Your task to perform on an android device: What's on my calendar today? Image 0: 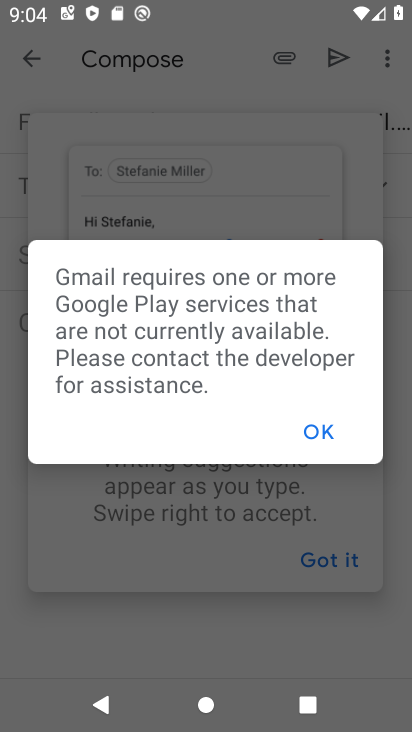
Step 0: press home button
Your task to perform on an android device: What's on my calendar today? Image 1: 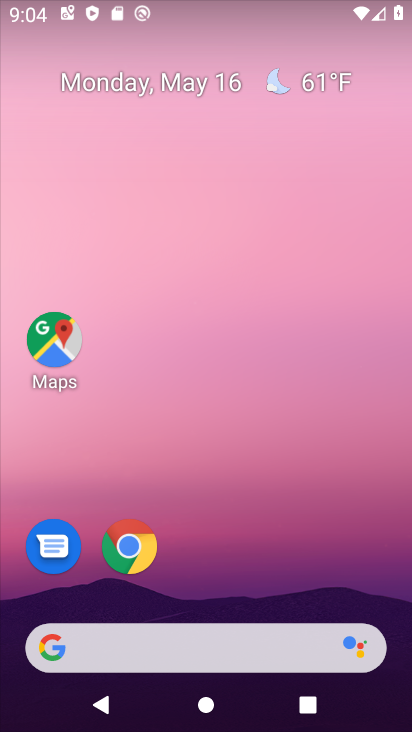
Step 1: drag from (284, 490) to (243, 149)
Your task to perform on an android device: What's on my calendar today? Image 2: 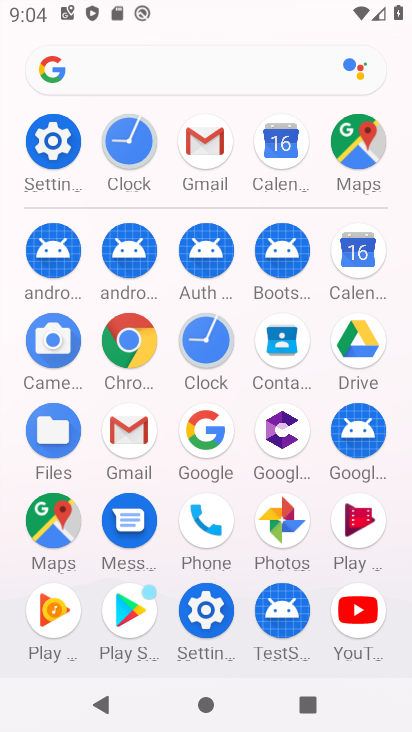
Step 2: click (367, 251)
Your task to perform on an android device: What's on my calendar today? Image 3: 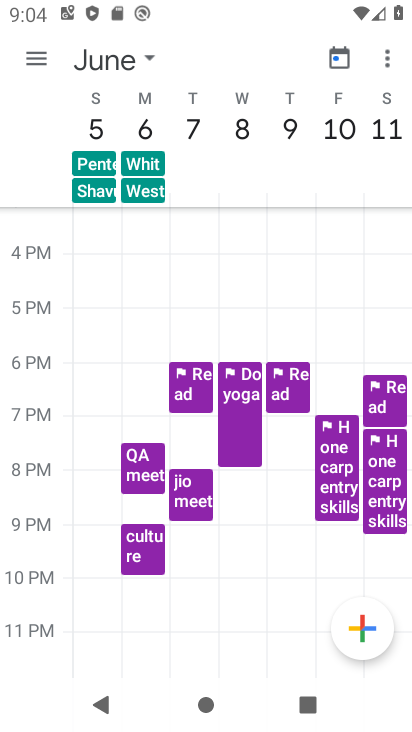
Step 3: click (95, 47)
Your task to perform on an android device: What's on my calendar today? Image 4: 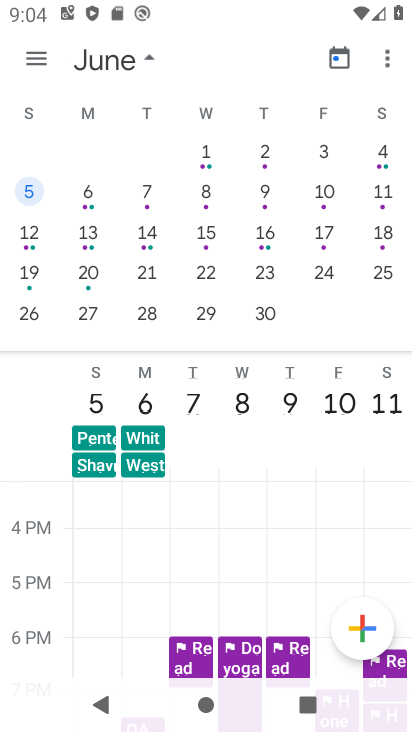
Step 4: drag from (119, 211) to (395, 240)
Your task to perform on an android device: What's on my calendar today? Image 5: 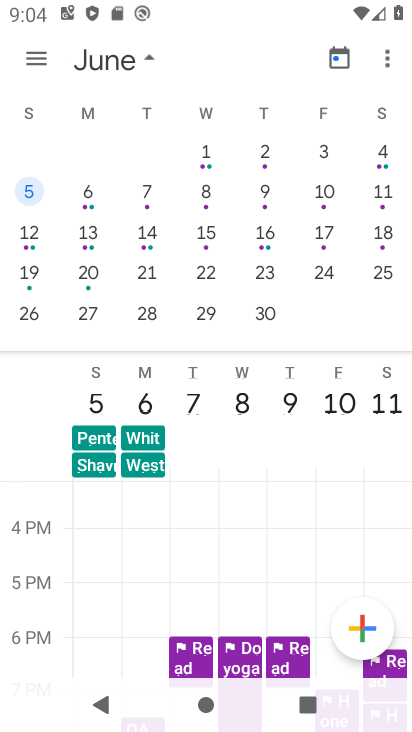
Step 5: drag from (72, 167) to (362, 174)
Your task to perform on an android device: What's on my calendar today? Image 6: 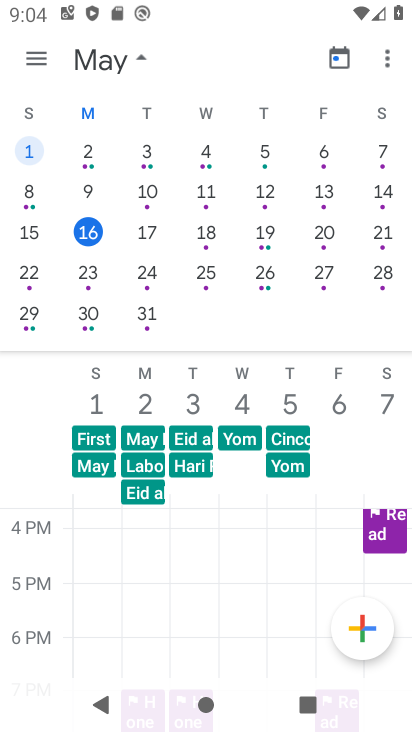
Step 6: click (90, 228)
Your task to perform on an android device: What's on my calendar today? Image 7: 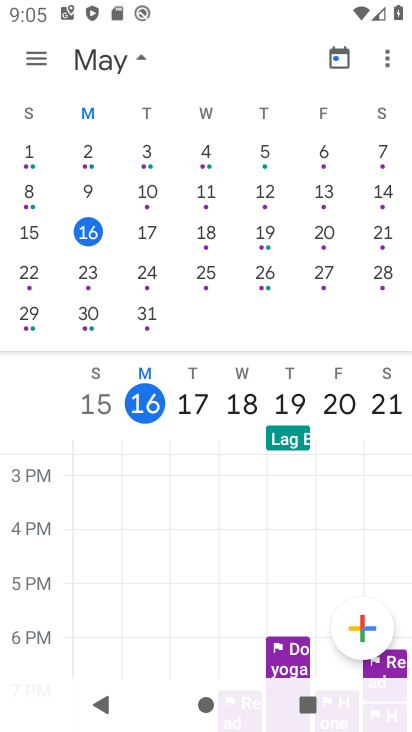
Step 7: click (35, 62)
Your task to perform on an android device: What's on my calendar today? Image 8: 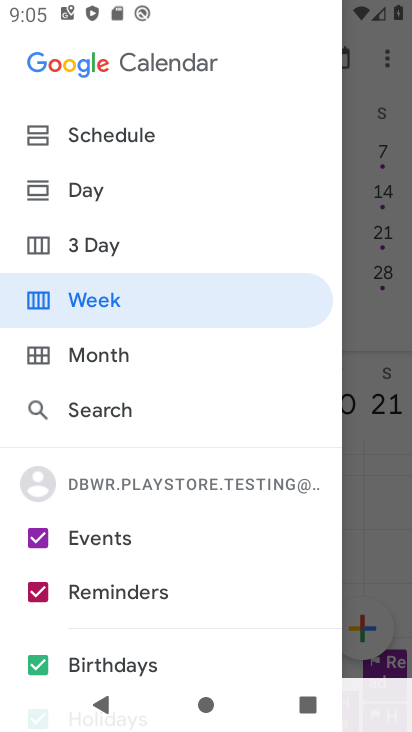
Step 8: click (110, 193)
Your task to perform on an android device: What's on my calendar today? Image 9: 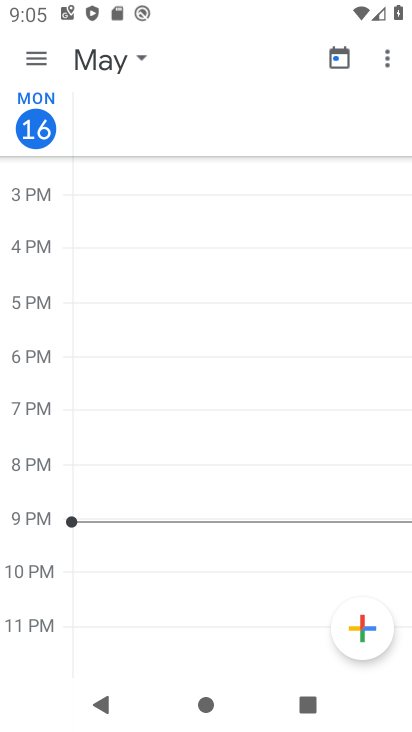
Step 9: task complete